Your task to perform on an android device: change alarm snooze length Image 0: 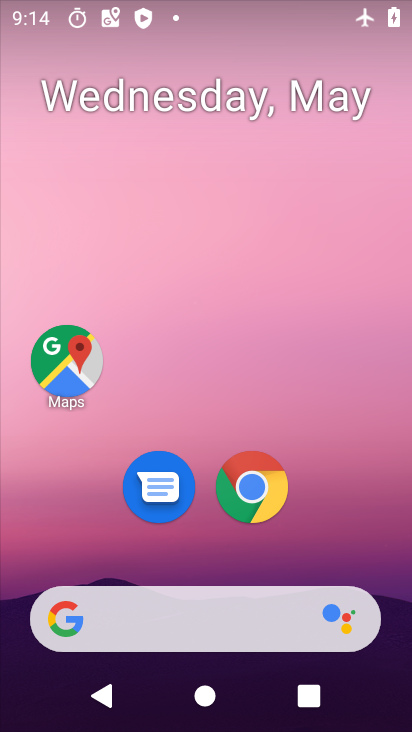
Step 0: drag from (210, 552) to (209, 172)
Your task to perform on an android device: change alarm snooze length Image 1: 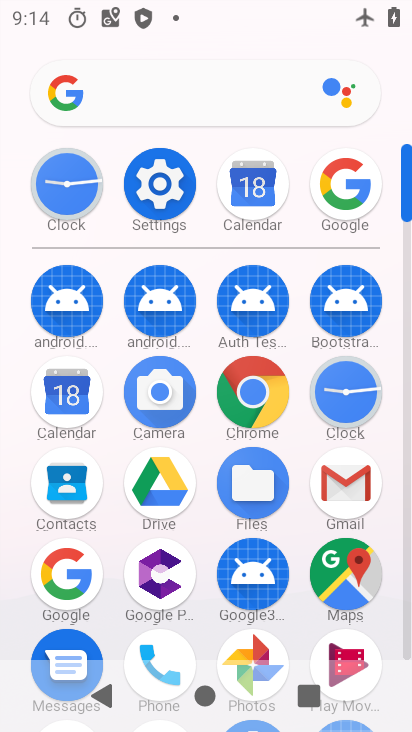
Step 1: click (88, 199)
Your task to perform on an android device: change alarm snooze length Image 2: 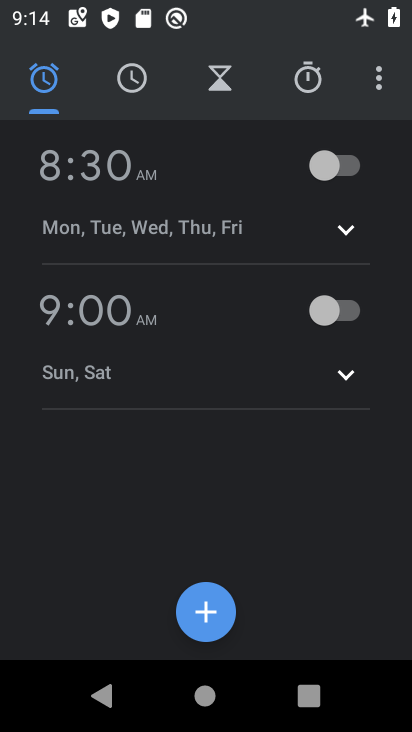
Step 2: click (381, 68)
Your task to perform on an android device: change alarm snooze length Image 3: 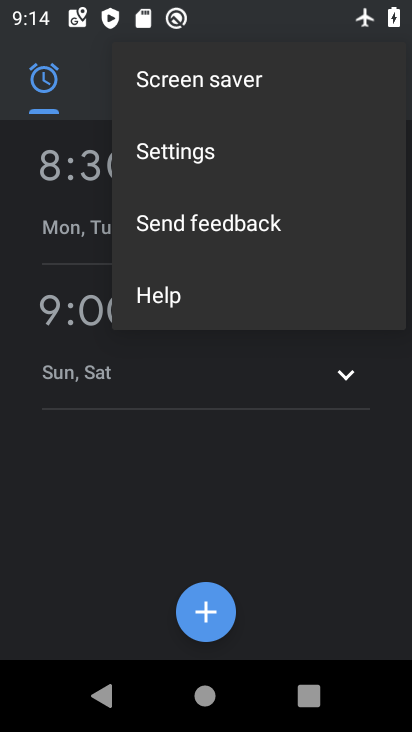
Step 3: click (216, 150)
Your task to perform on an android device: change alarm snooze length Image 4: 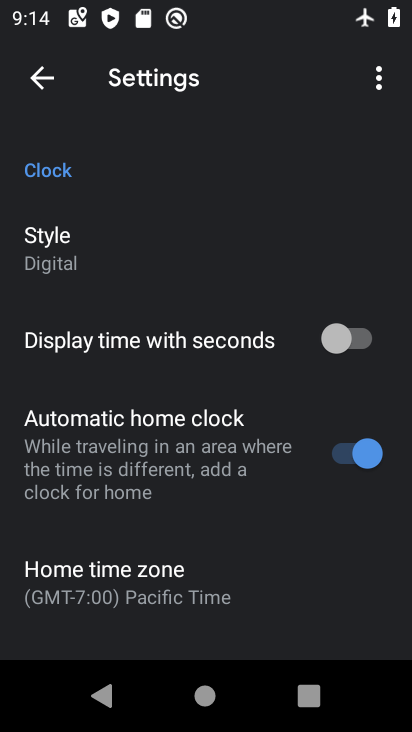
Step 4: drag from (239, 463) to (275, 243)
Your task to perform on an android device: change alarm snooze length Image 5: 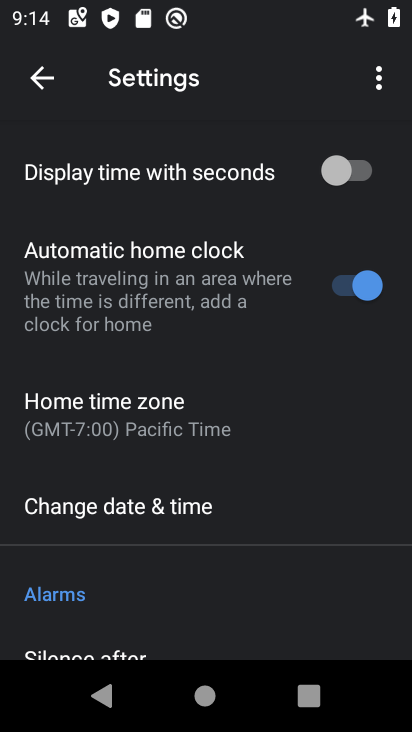
Step 5: drag from (213, 560) to (258, 365)
Your task to perform on an android device: change alarm snooze length Image 6: 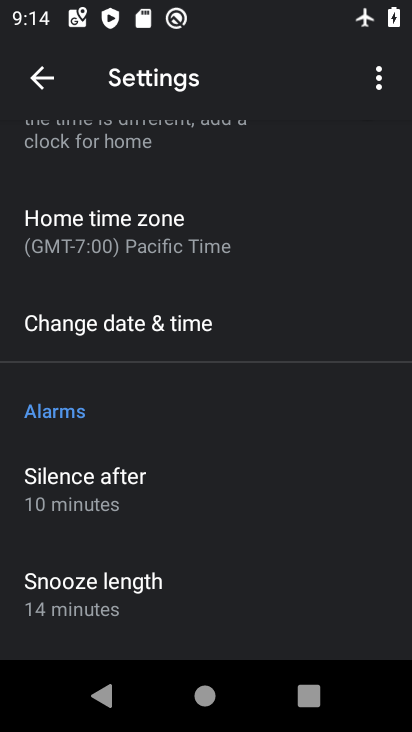
Step 6: drag from (276, 551) to (290, 397)
Your task to perform on an android device: change alarm snooze length Image 7: 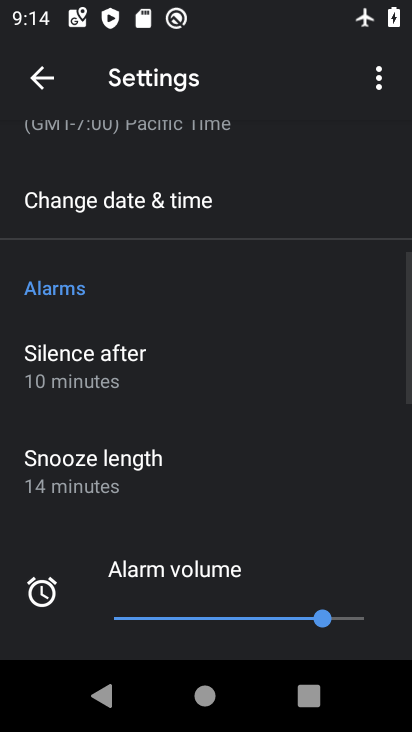
Step 7: click (194, 469)
Your task to perform on an android device: change alarm snooze length Image 8: 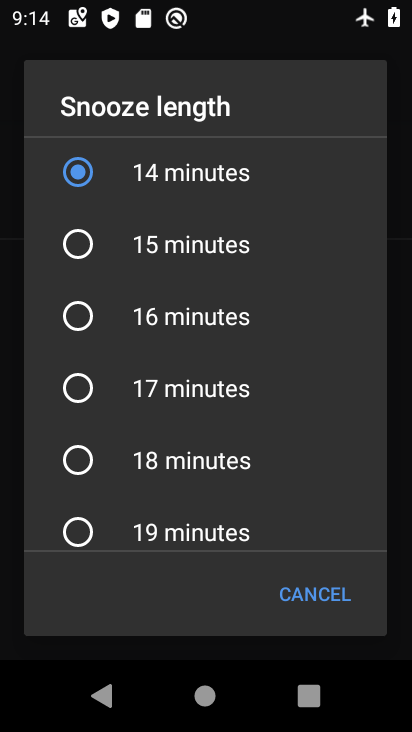
Step 8: click (173, 463)
Your task to perform on an android device: change alarm snooze length Image 9: 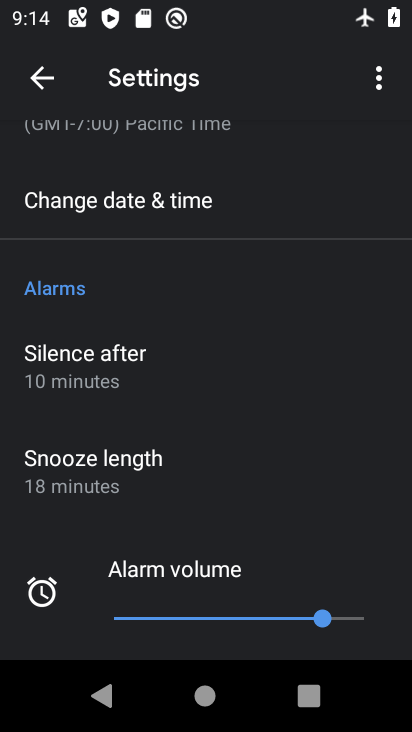
Step 9: task complete